Your task to perform on an android device: show emergency info Image 0: 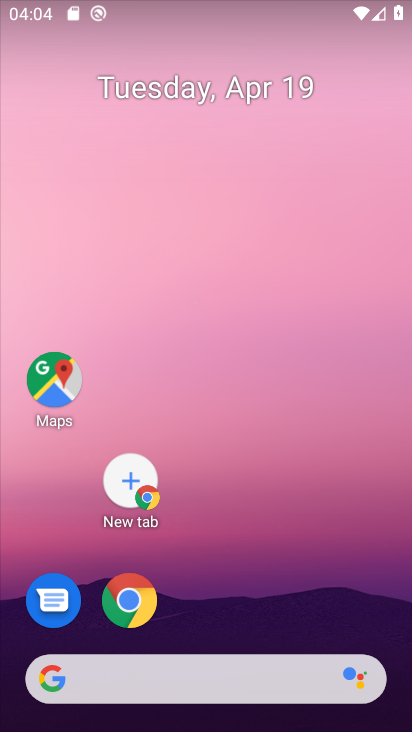
Step 0: drag from (298, 10) to (197, 728)
Your task to perform on an android device: show emergency info Image 1: 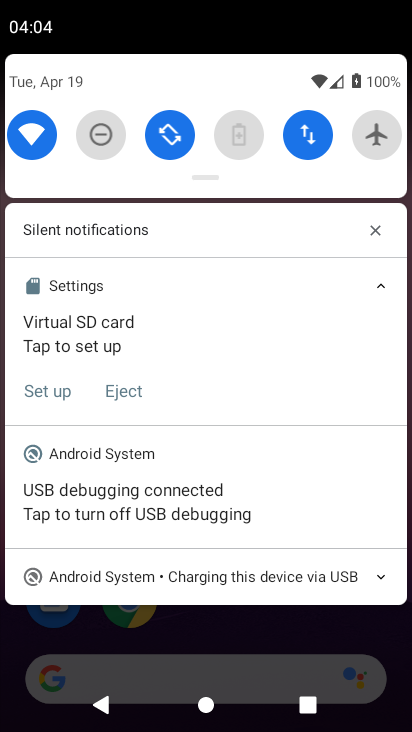
Step 1: drag from (248, 173) to (96, 641)
Your task to perform on an android device: show emergency info Image 2: 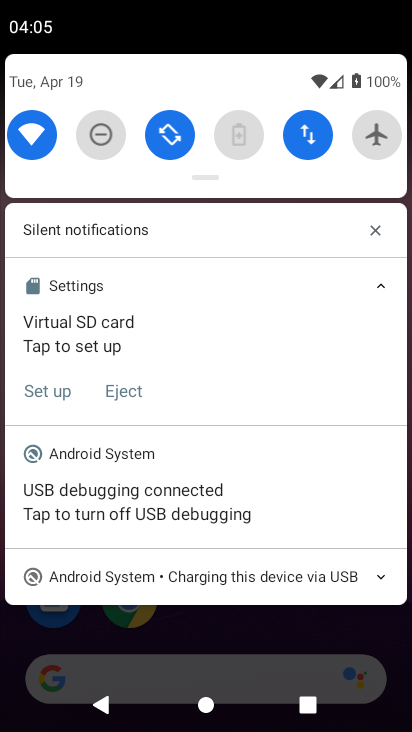
Step 2: drag from (205, 87) to (230, 546)
Your task to perform on an android device: show emergency info Image 3: 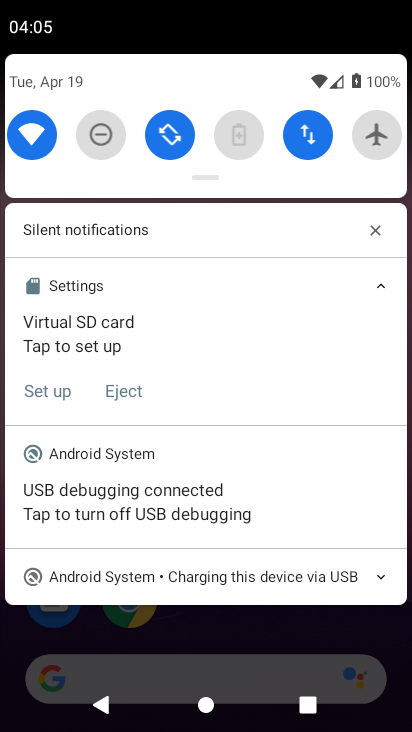
Step 3: drag from (181, 77) to (239, 652)
Your task to perform on an android device: show emergency info Image 4: 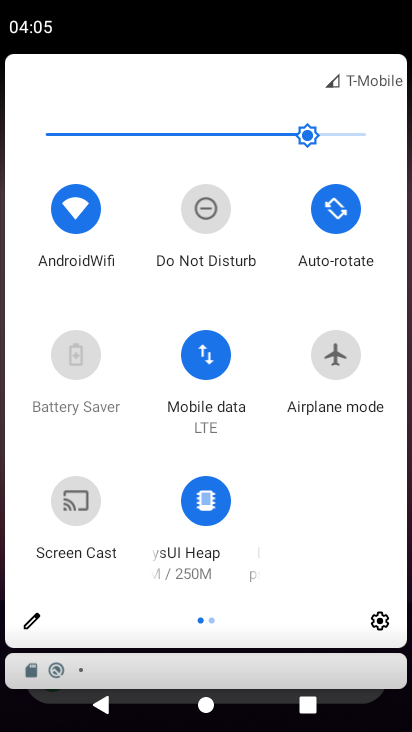
Step 4: click (382, 618)
Your task to perform on an android device: show emergency info Image 5: 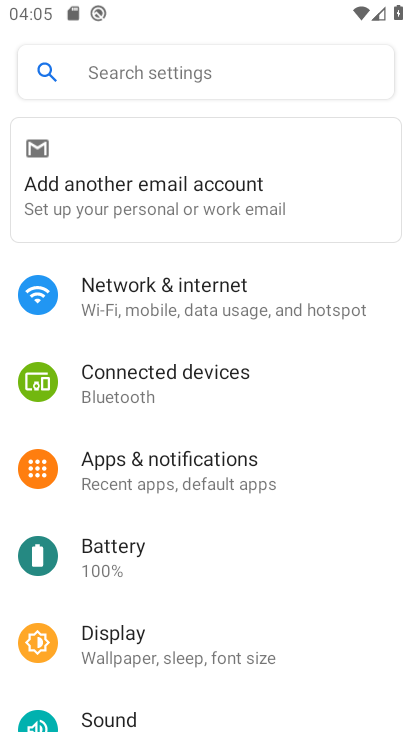
Step 5: drag from (179, 662) to (175, 207)
Your task to perform on an android device: show emergency info Image 6: 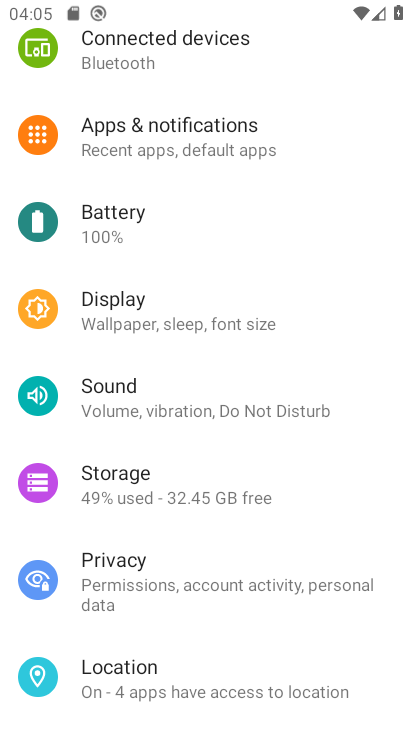
Step 6: drag from (151, 624) to (158, 126)
Your task to perform on an android device: show emergency info Image 7: 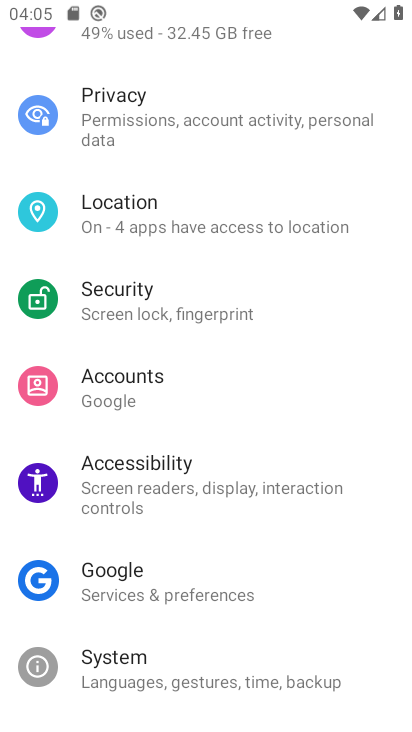
Step 7: drag from (65, 599) to (88, 78)
Your task to perform on an android device: show emergency info Image 8: 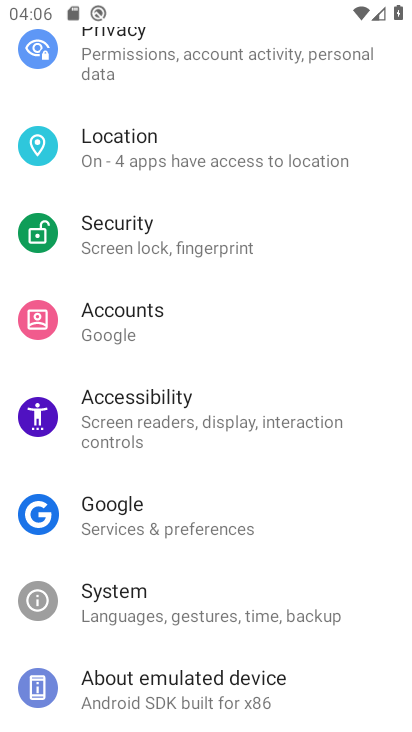
Step 8: drag from (190, 712) to (199, 239)
Your task to perform on an android device: show emergency info Image 9: 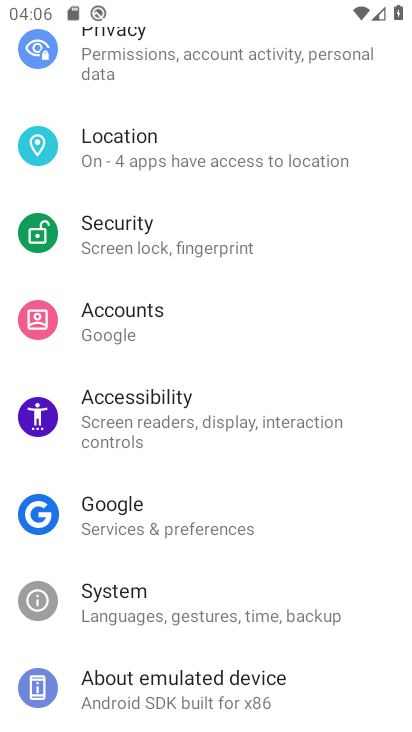
Step 9: click (120, 708)
Your task to perform on an android device: show emergency info Image 10: 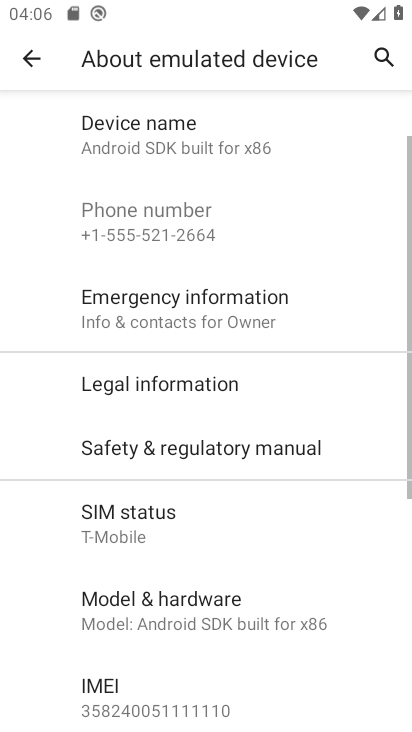
Step 10: click (141, 302)
Your task to perform on an android device: show emergency info Image 11: 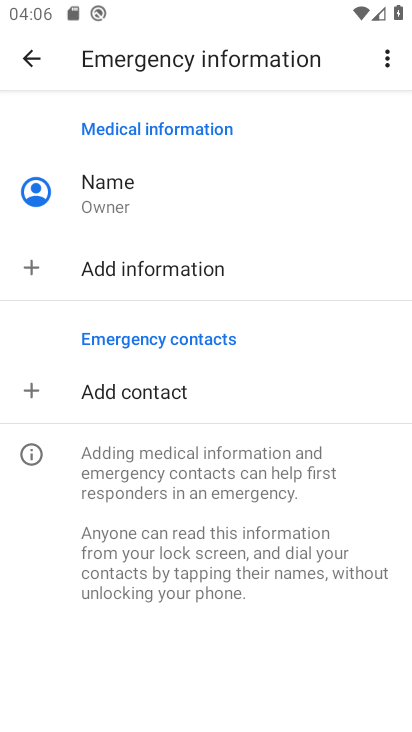
Step 11: task complete